Your task to perform on an android device: turn on showing notifications on the lock screen Image 0: 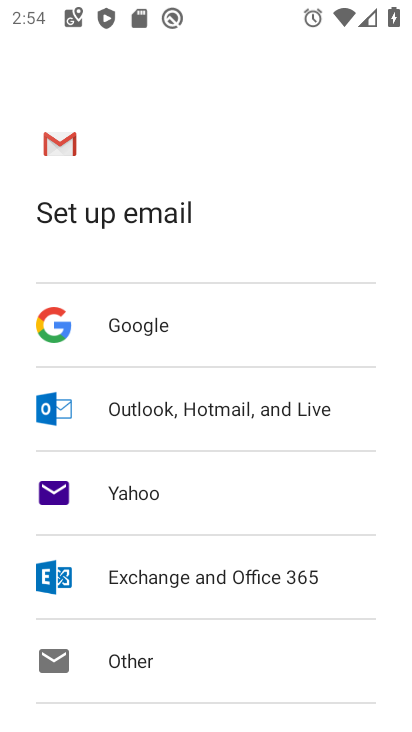
Step 0: press home button
Your task to perform on an android device: turn on showing notifications on the lock screen Image 1: 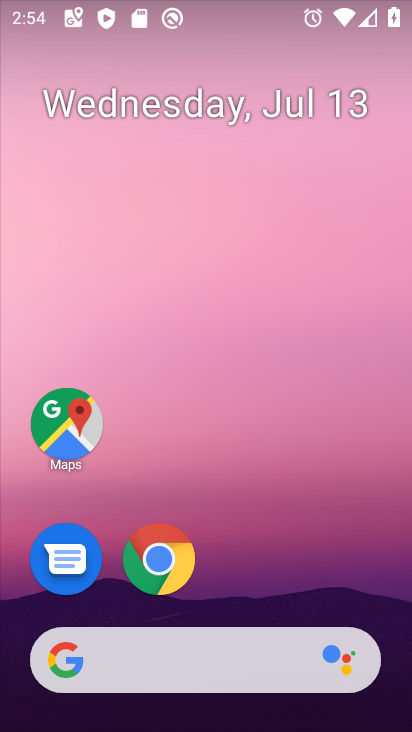
Step 1: drag from (359, 575) to (386, 186)
Your task to perform on an android device: turn on showing notifications on the lock screen Image 2: 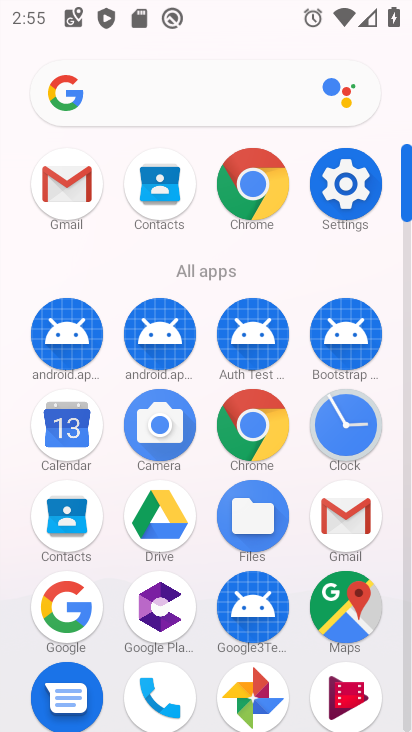
Step 2: click (354, 208)
Your task to perform on an android device: turn on showing notifications on the lock screen Image 3: 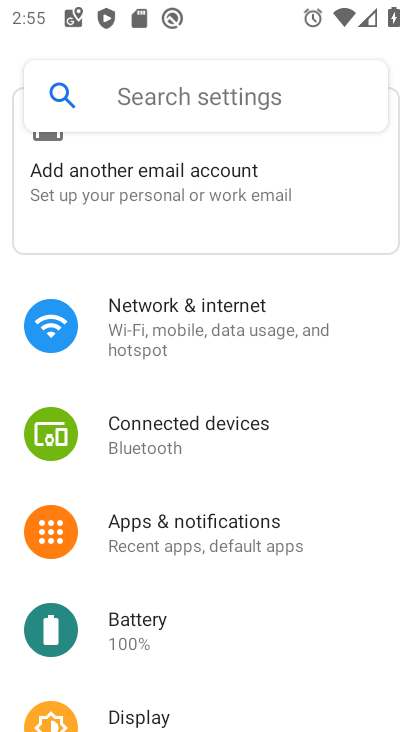
Step 3: drag from (336, 540) to (339, 368)
Your task to perform on an android device: turn on showing notifications on the lock screen Image 4: 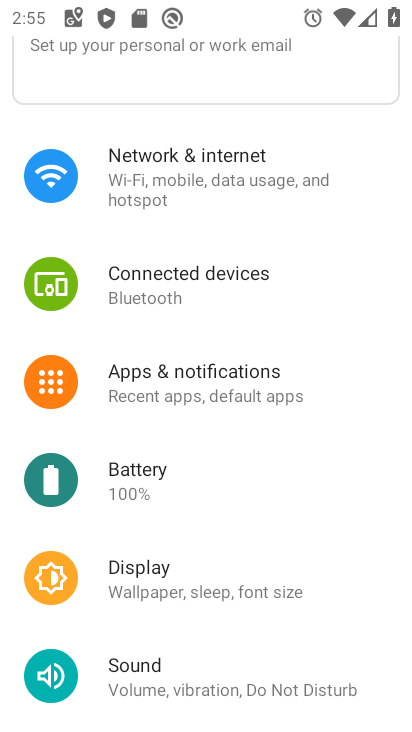
Step 4: drag from (341, 493) to (341, 315)
Your task to perform on an android device: turn on showing notifications on the lock screen Image 5: 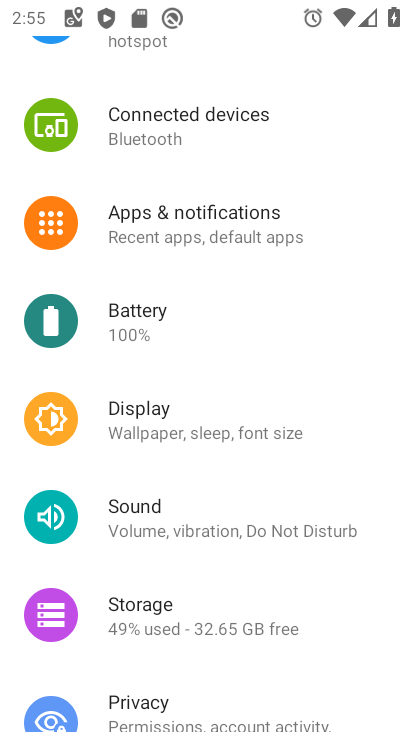
Step 5: drag from (339, 419) to (346, 242)
Your task to perform on an android device: turn on showing notifications on the lock screen Image 6: 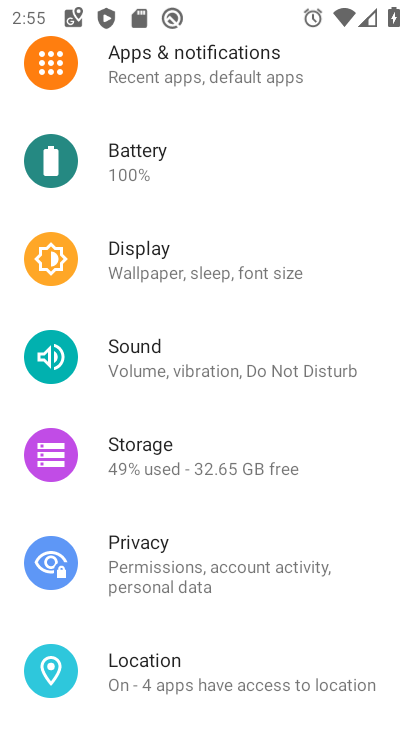
Step 6: drag from (331, 201) to (332, 330)
Your task to perform on an android device: turn on showing notifications on the lock screen Image 7: 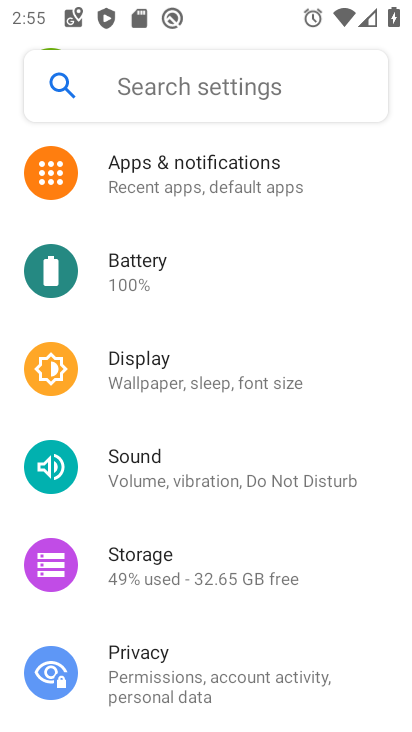
Step 7: click (255, 182)
Your task to perform on an android device: turn on showing notifications on the lock screen Image 8: 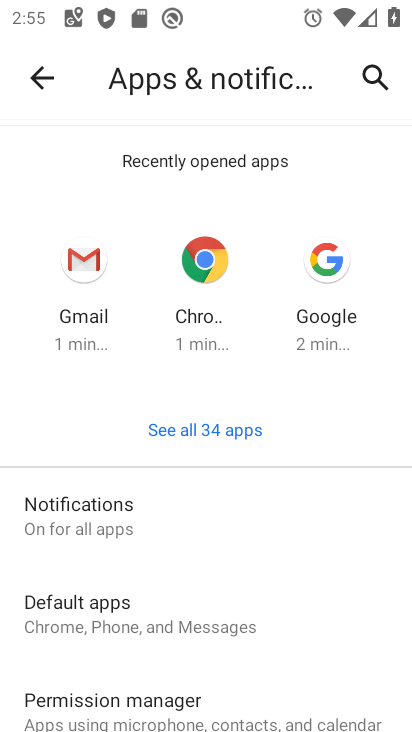
Step 8: drag from (286, 537) to (303, 396)
Your task to perform on an android device: turn on showing notifications on the lock screen Image 9: 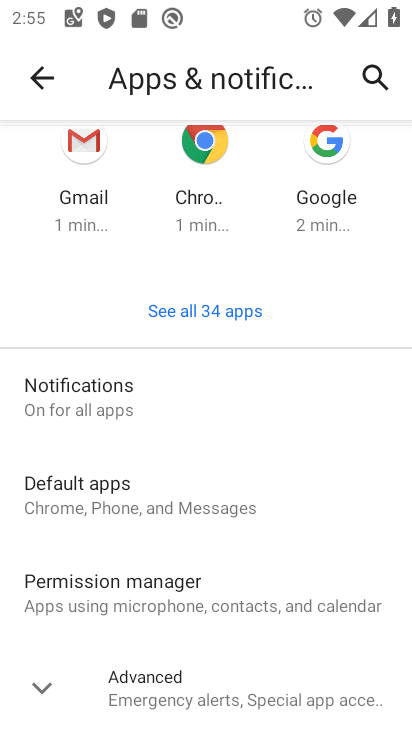
Step 9: click (123, 406)
Your task to perform on an android device: turn on showing notifications on the lock screen Image 10: 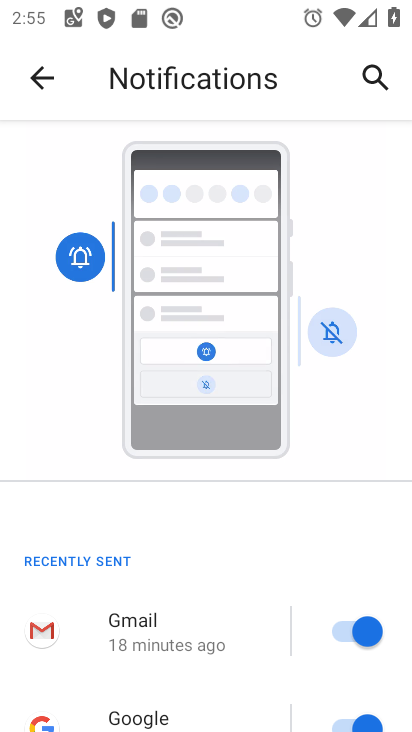
Step 10: drag from (242, 606) to (264, 445)
Your task to perform on an android device: turn on showing notifications on the lock screen Image 11: 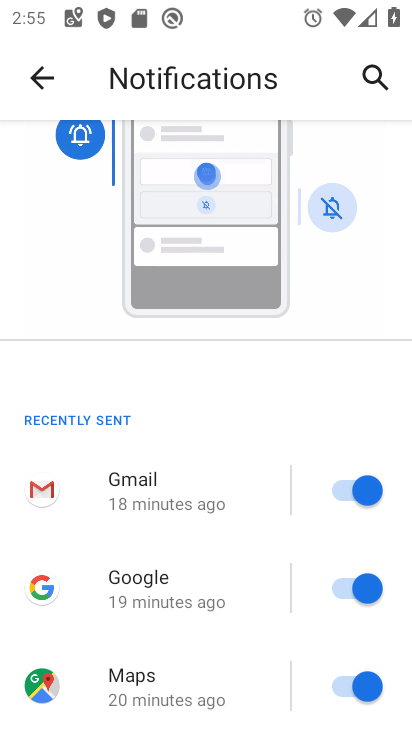
Step 11: drag from (251, 549) to (254, 291)
Your task to perform on an android device: turn on showing notifications on the lock screen Image 12: 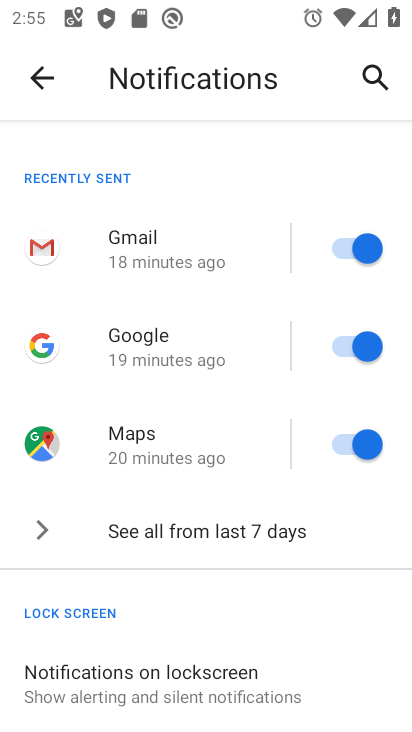
Step 12: drag from (283, 583) to (283, 358)
Your task to perform on an android device: turn on showing notifications on the lock screen Image 13: 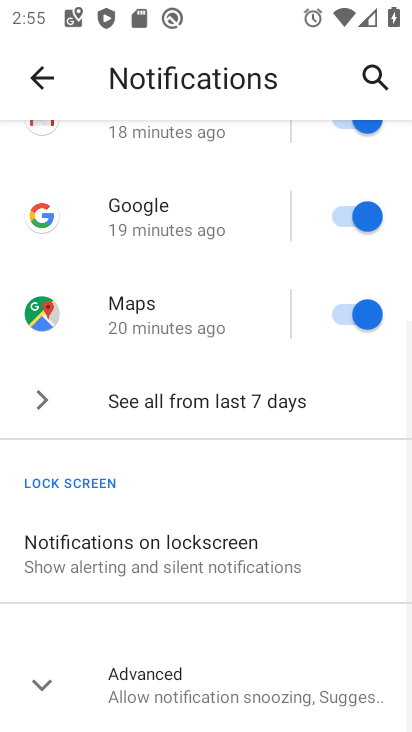
Step 13: click (261, 555)
Your task to perform on an android device: turn on showing notifications on the lock screen Image 14: 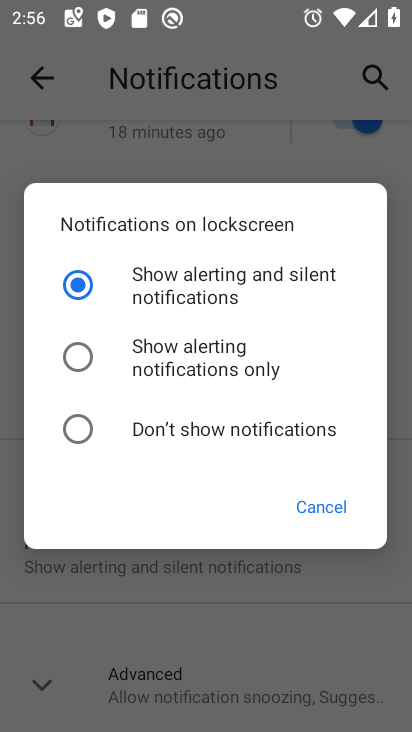
Step 14: task complete